Your task to perform on an android device: set the timer Image 0: 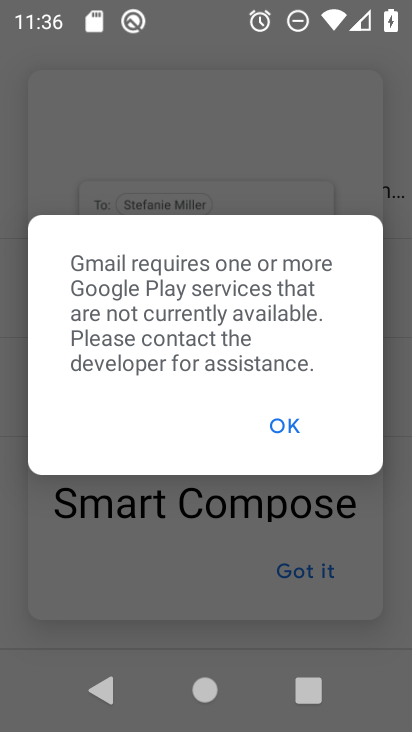
Step 0: press home button
Your task to perform on an android device: set the timer Image 1: 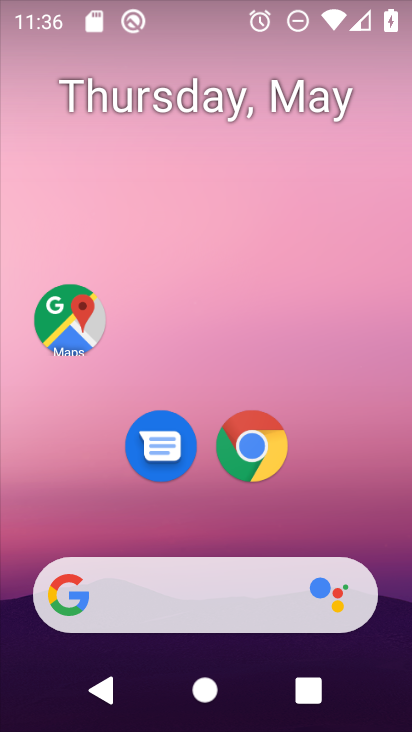
Step 1: drag from (244, 648) to (225, 233)
Your task to perform on an android device: set the timer Image 2: 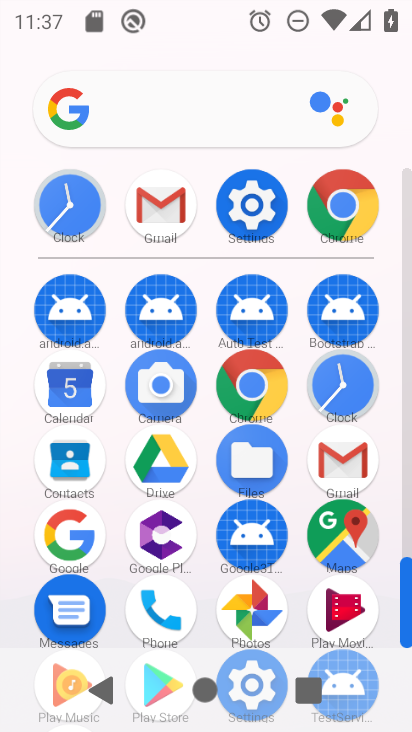
Step 2: click (344, 411)
Your task to perform on an android device: set the timer Image 3: 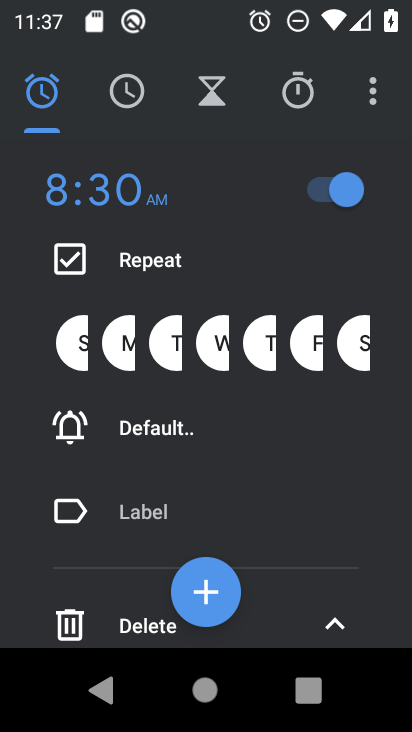
Step 3: click (218, 101)
Your task to perform on an android device: set the timer Image 4: 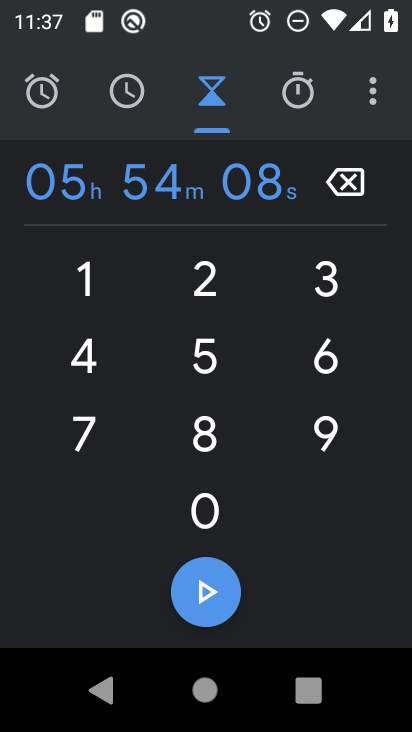
Step 4: click (191, 275)
Your task to perform on an android device: set the timer Image 5: 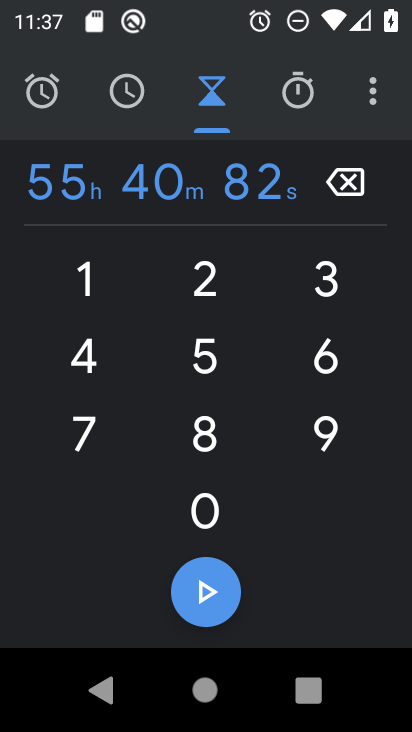
Step 5: click (98, 345)
Your task to perform on an android device: set the timer Image 6: 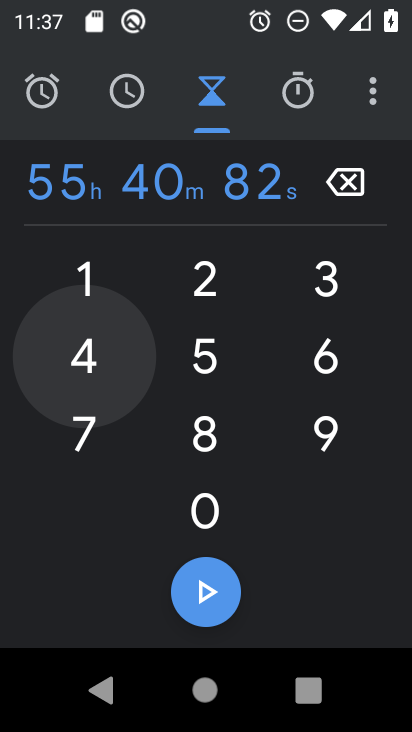
Step 6: click (200, 366)
Your task to perform on an android device: set the timer Image 7: 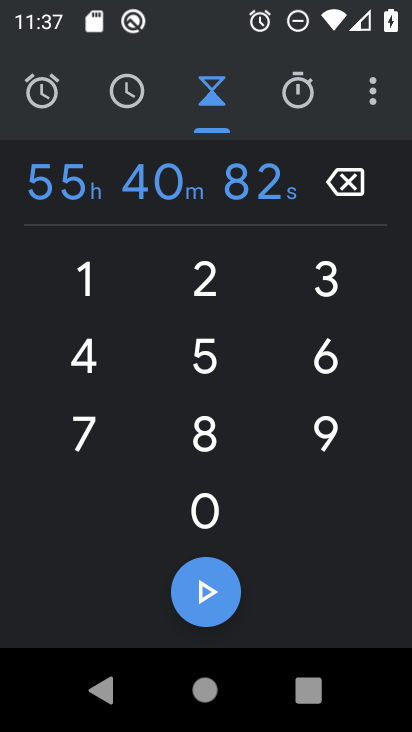
Step 7: click (190, 585)
Your task to perform on an android device: set the timer Image 8: 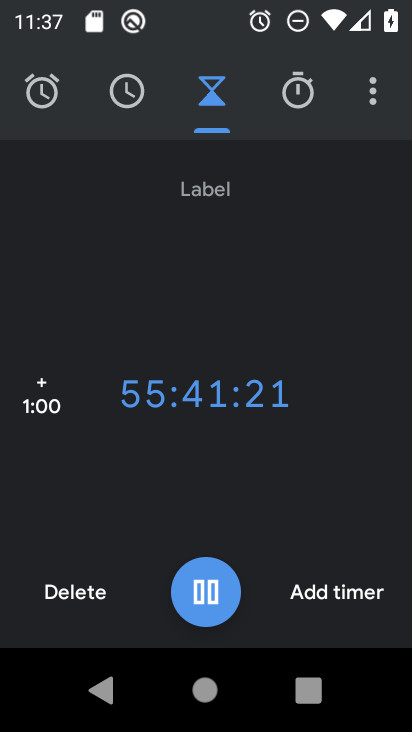
Step 8: task complete